Your task to perform on an android device: Open ESPN.com Image 0: 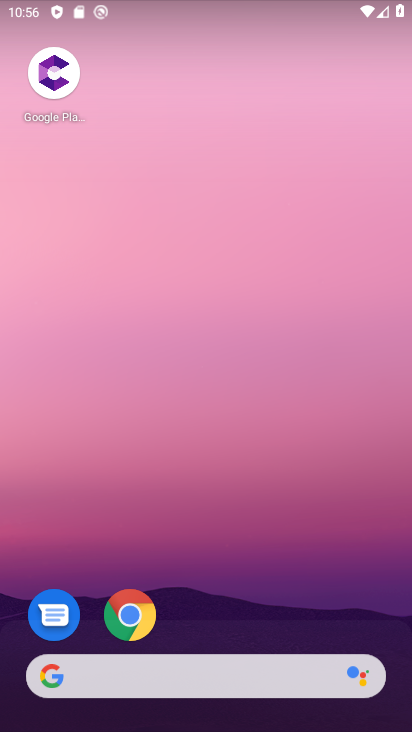
Step 0: click (147, 606)
Your task to perform on an android device: Open ESPN.com Image 1: 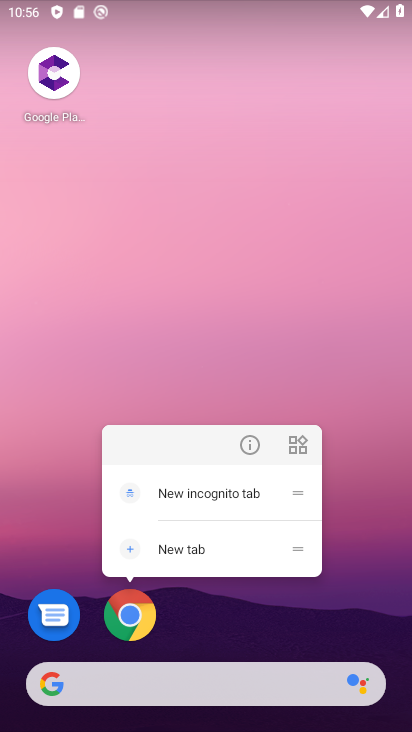
Step 1: click (115, 612)
Your task to perform on an android device: Open ESPN.com Image 2: 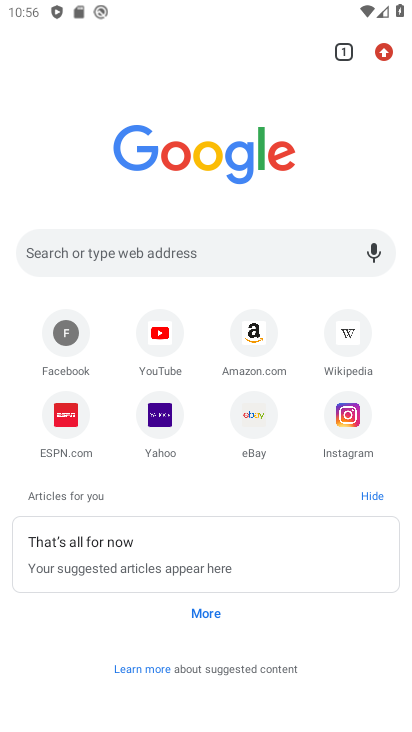
Step 2: drag from (163, 602) to (308, 266)
Your task to perform on an android device: Open ESPN.com Image 3: 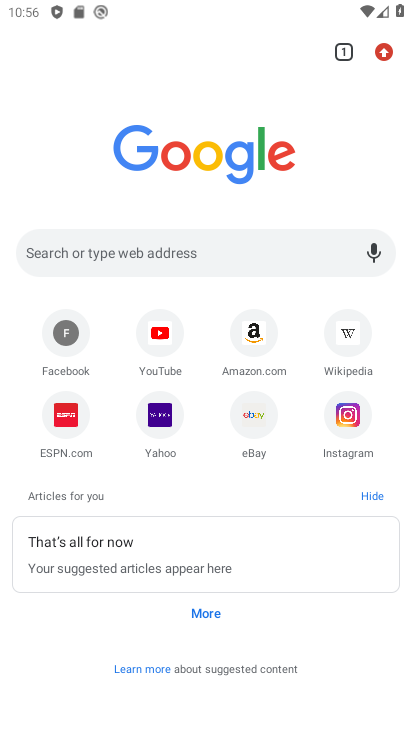
Step 3: click (243, 217)
Your task to perform on an android device: Open ESPN.com Image 4: 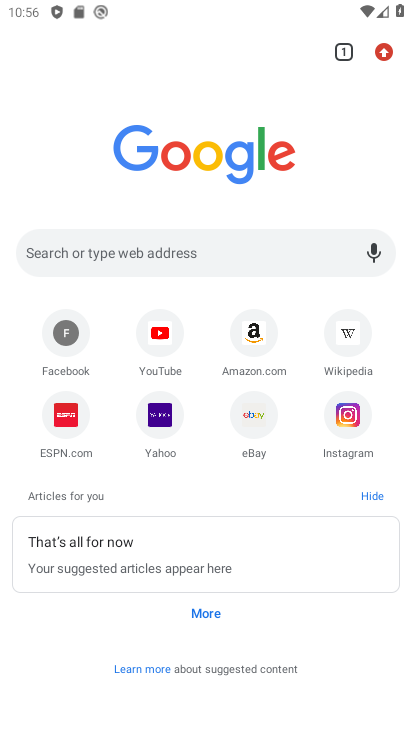
Step 4: click (75, 432)
Your task to perform on an android device: Open ESPN.com Image 5: 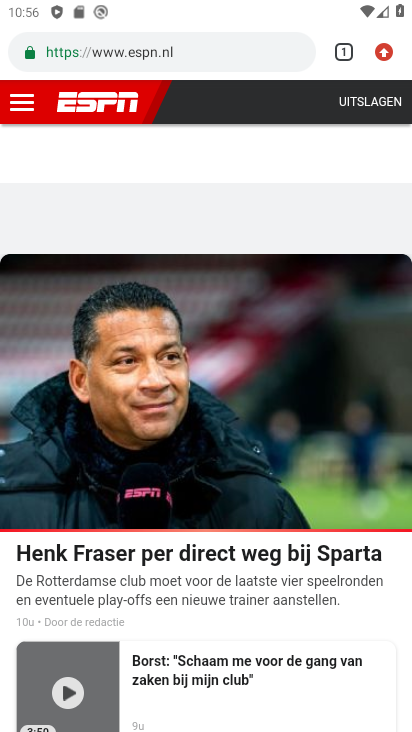
Step 5: task complete